Your task to perform on an android device: see sites visited before in the chrome app Image 0: 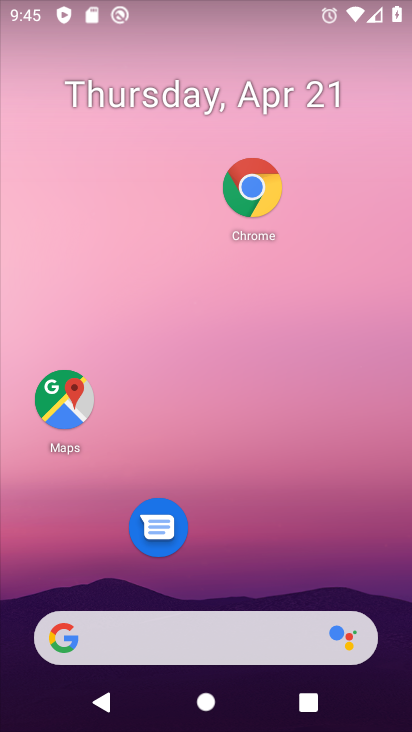
Step 0: drag from (291, 499) to (337, 160)
Your task to perform on an android device: see sites visited before in the chrome app Image 1: 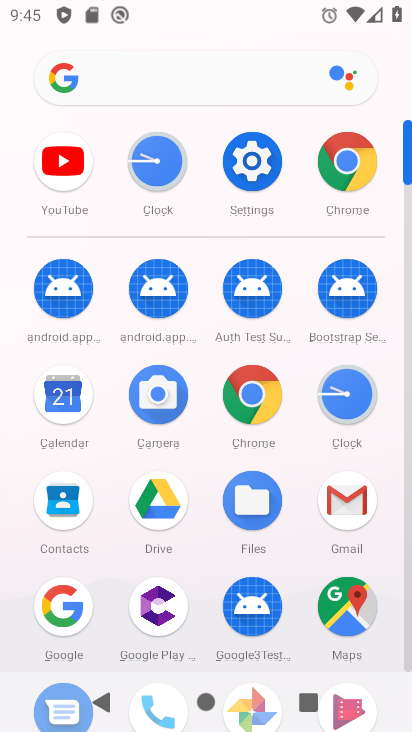
Step 1: click (350, 175)
Your task to perform on an android device: see sites visited before in the chrome app Image 2: 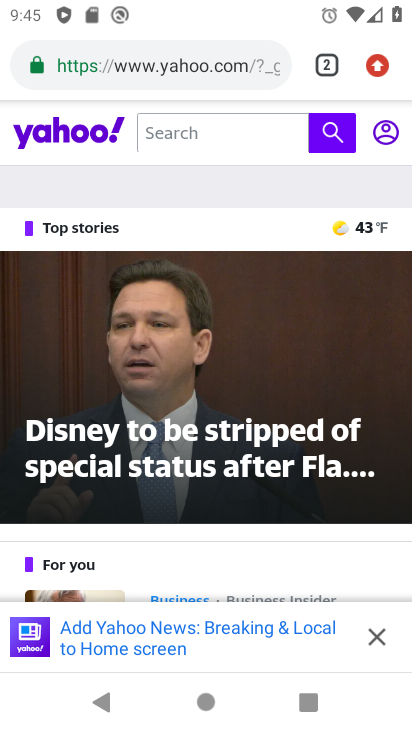
Step 2: click (378, 59)
Your task to perform on an android device: see sites visited before in the chrome app Image 3: 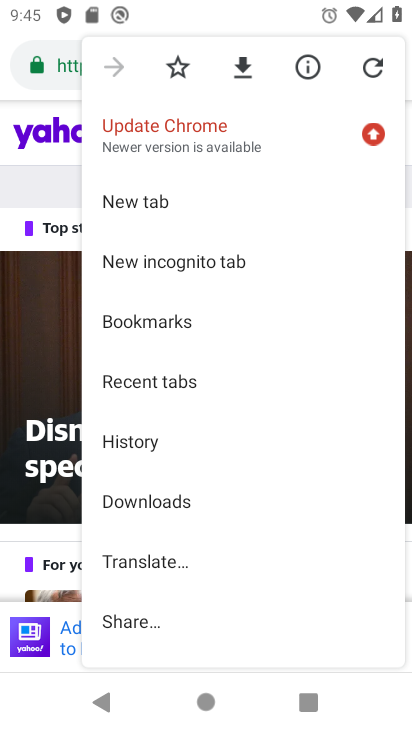
Step 3: click (184, 437)
Your task to perform on an android device: see sites visited before in the chrome app Image 4: 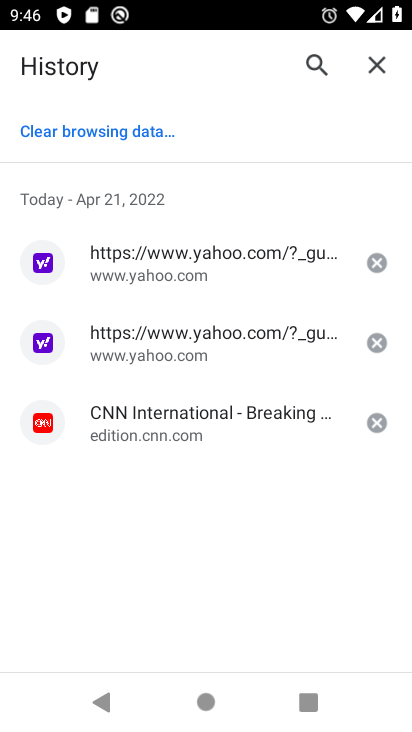
Step 4: task complete